Your task to perform on an android device: turn on airplane mode Image 0: 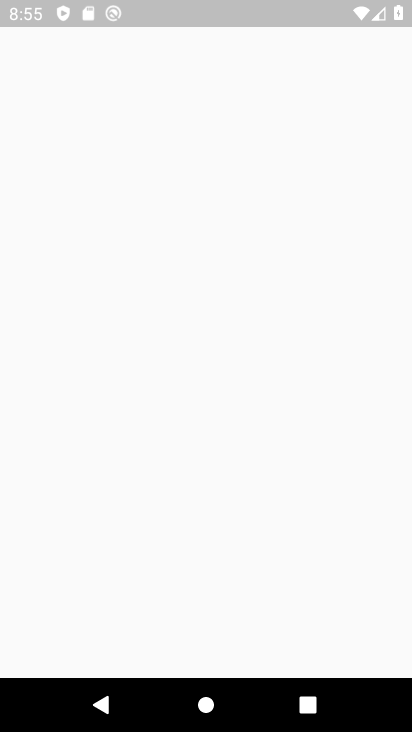
Step 0: press home button
Your task to perform on an android device: turn on airplane mode Image 1: 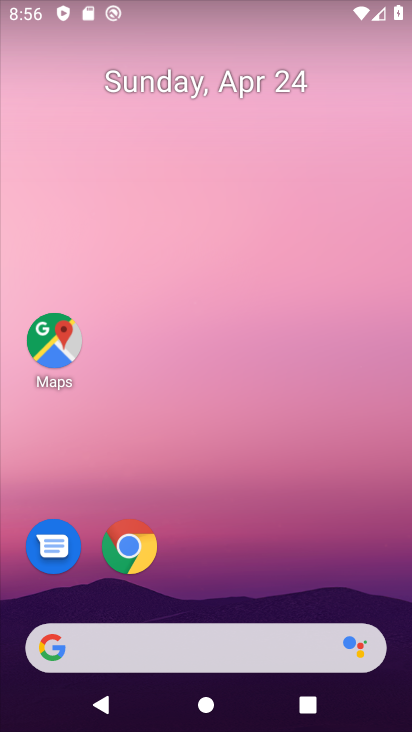
Step 1: drag from (301, 547) to (254, 48)
Your task to perform on an android device: turn on airplane mode Image 2: 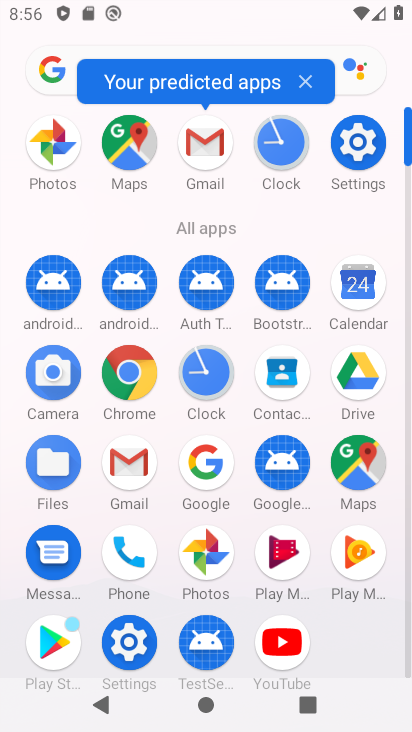
Step 2: click (357, 137)
Your task to perform on an android device: turn on airplane mode Image 3: 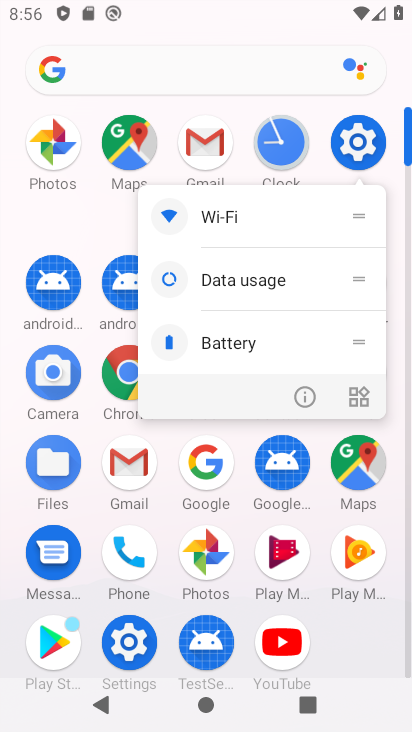
Step 3: click (353, 148)
Your task to perform on an android device: turn on airplane mode Image 4: 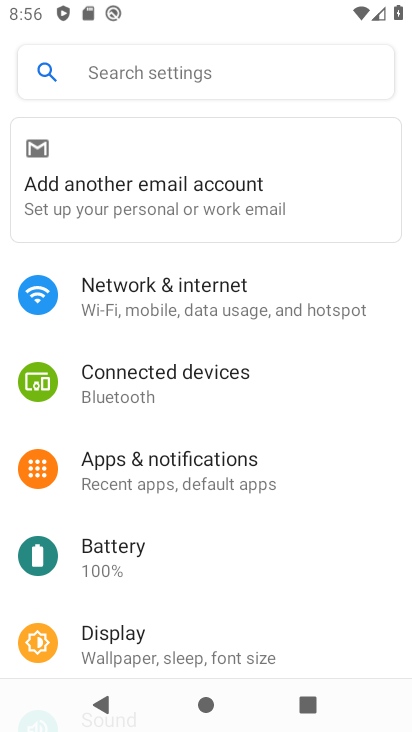
Step 4: click (302, 281)
Your task to perform on an android device: turn on airplane mode Image 5: 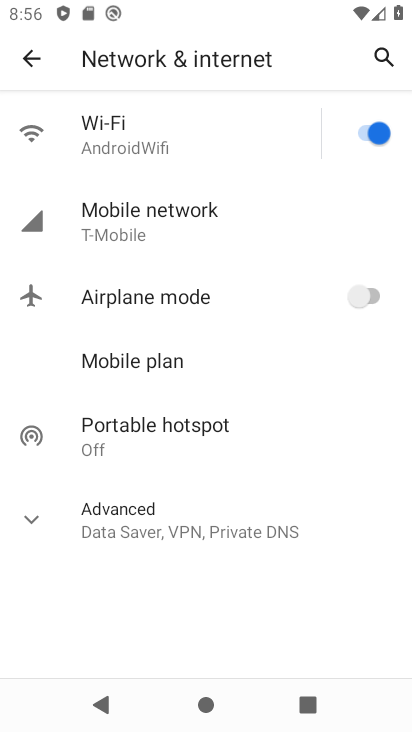
Step 5: click (343, 300)
Your task to perform on an android device: turn on airplane mode Image 6: 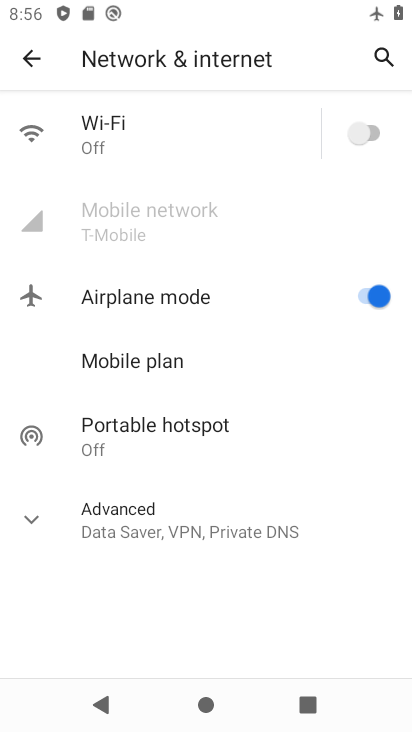
Step 6: task complete